Your task to perform on an android device: Go to calendar. Show me events next week Image 0: 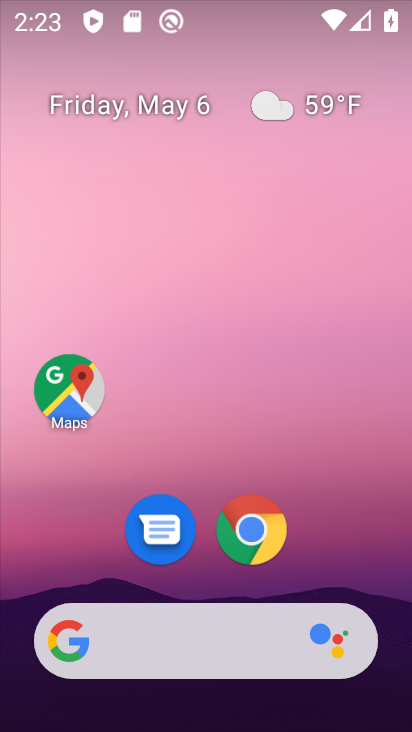
Step 0: drag from (353, 478) to (277, 135)
Your task to perform on an android device: Go to calendar. Show me events next week Image 1: 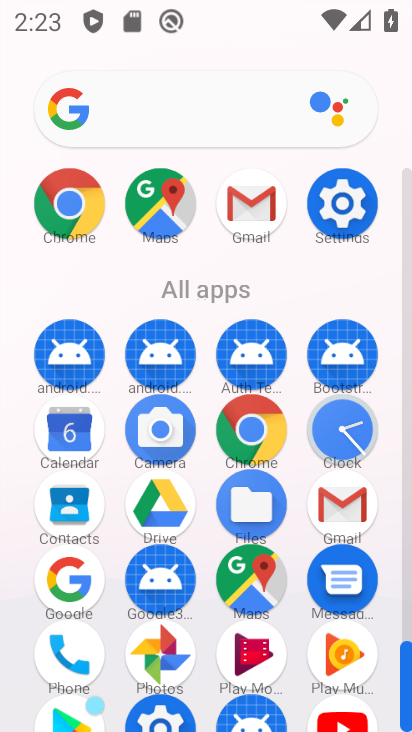
Step 1: click (78, 445)
Your task to perform on an android device: Go to calendar. Show me events next week Image 2: 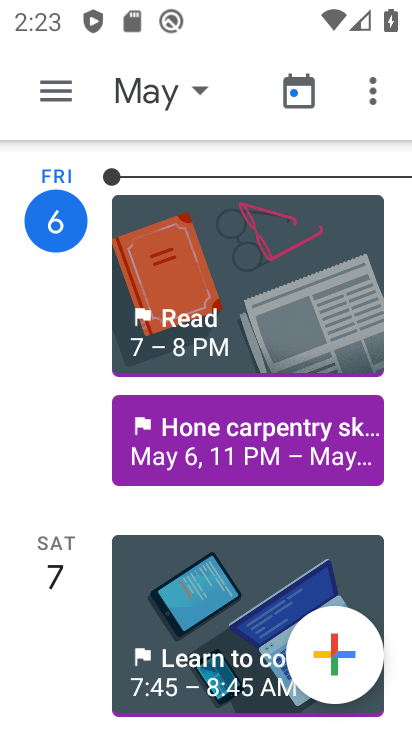
Step 2: click (168, 82)
Your task to perform on an android device: Go to calendar. Show me events next week Image 3: 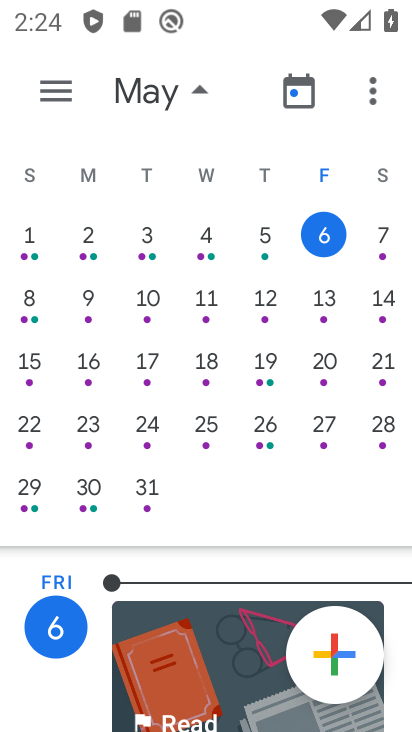
Step 3: click (396, 240)
Your task to perform on an android device: Go to calendar. Show me events next week Image 4: 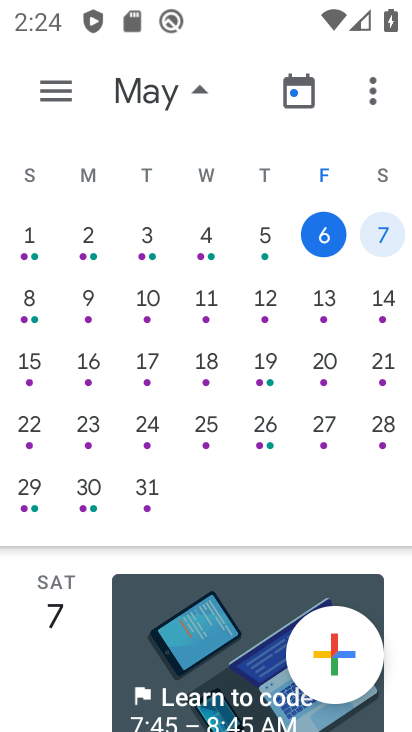
Step 4: task complete